Your task to perform on an android device: Open Maps and search for coffee Image 0: 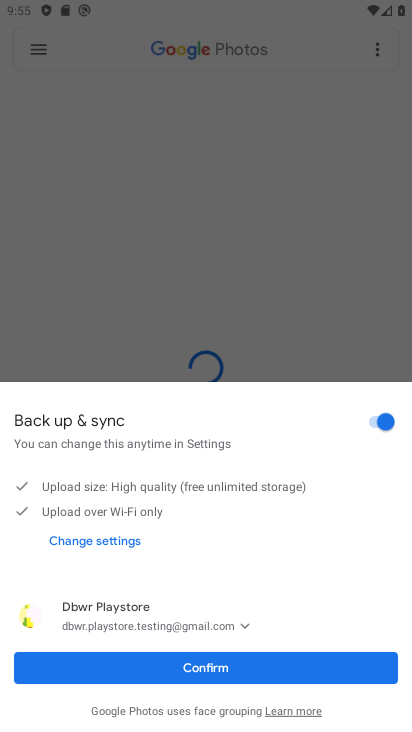
Step 0: press back button
Your task to perform on an android device: Open Maps and search for coffee Image 1: 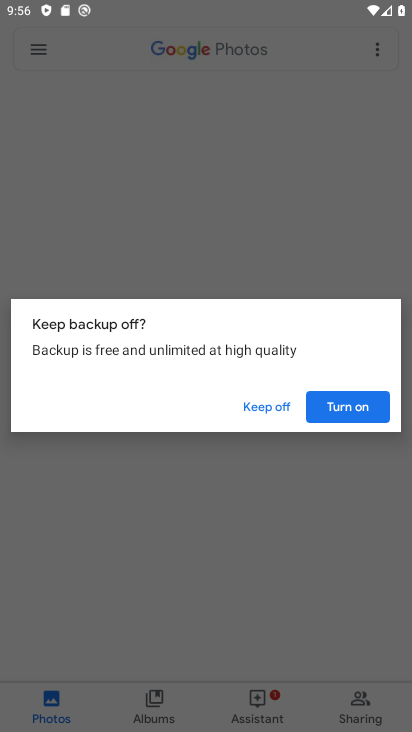
Step 1: press back button
Your task to perform on an android device: Open Maps and search for coffee Image 2: 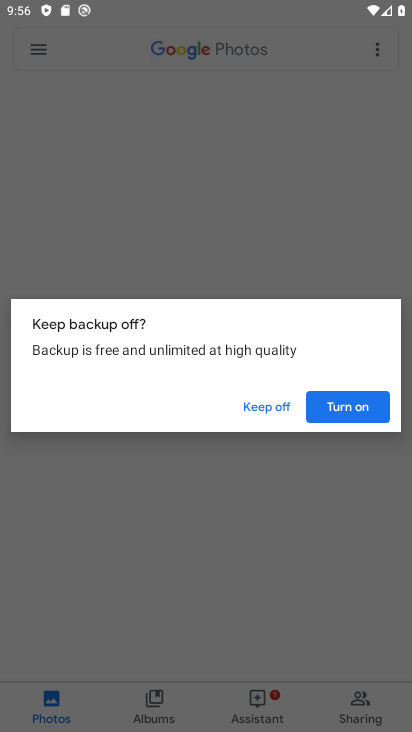
Step 2: press back button
Your task to perform on an android device: Open Maps and search for coffee Image 3: 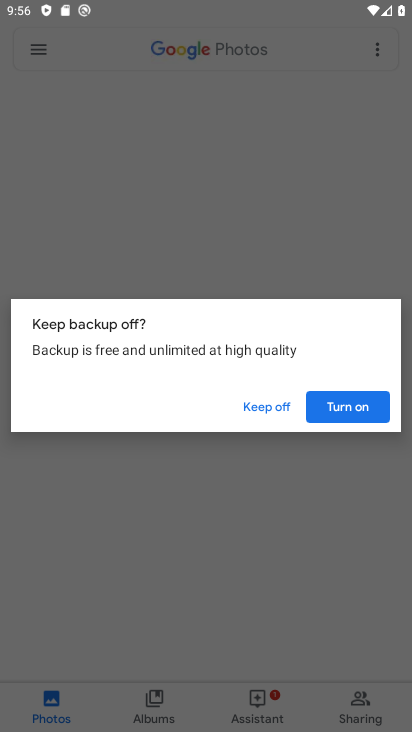
Step 3: press home button
Your task to perform on an android device: Open Maps and search for coffee Image 4: 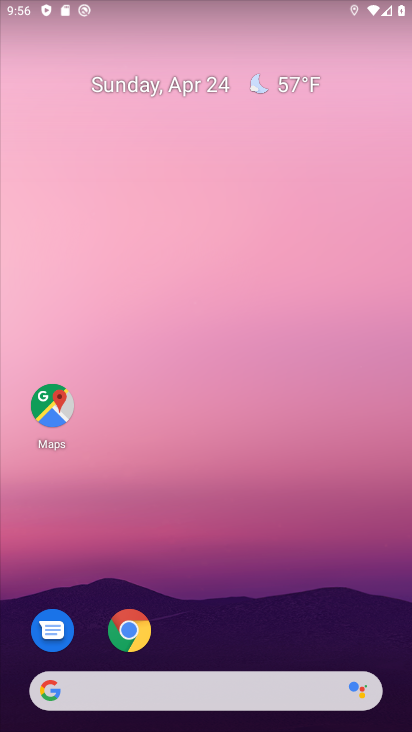
Step 4: click (51, 410)
Your task to perform on an android device: Open Maps and search for coffee Image 5: 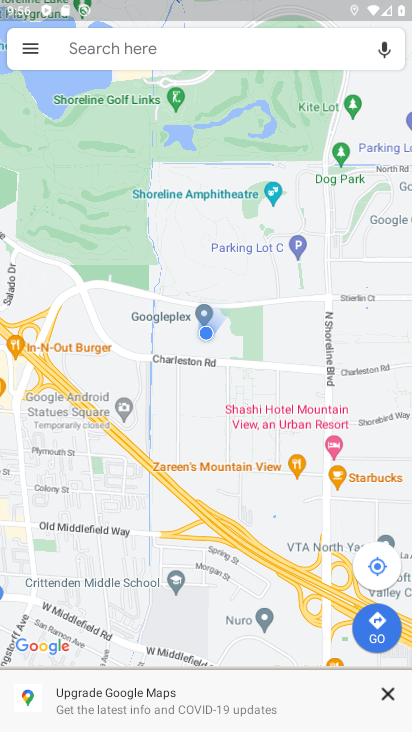
Step 5: click (140, 46)
Your task to perform on an android device: Open Maps and search for coffee Image 6: 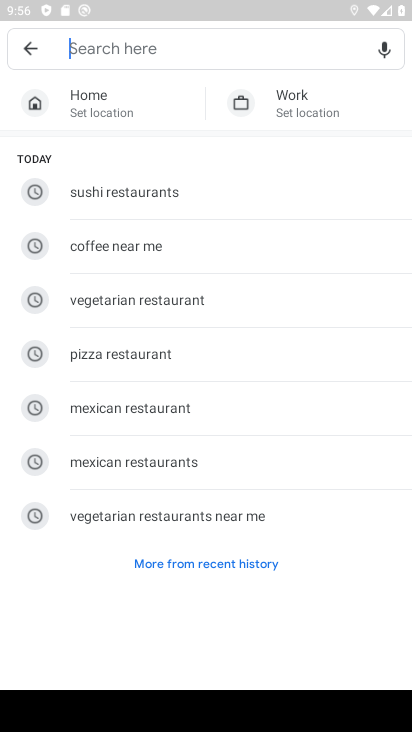
Step 6: type "coffee"
Your task to perform on an android device: Open Maps and search for coffee Image 7: 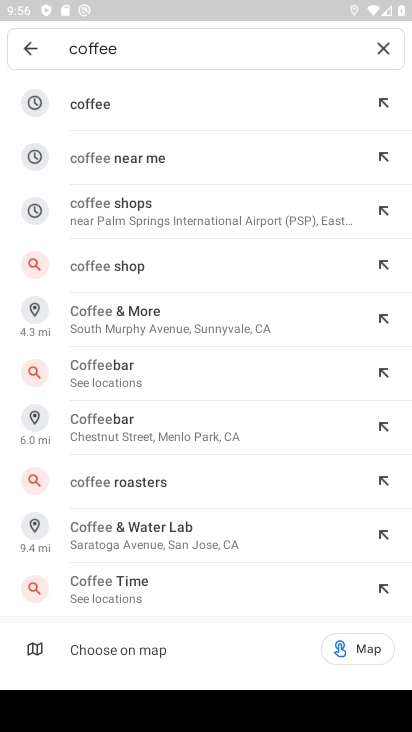
Step 7: click (89, 102)
Your task to perform on an android device: Open Maps and search for coffee Image 8: 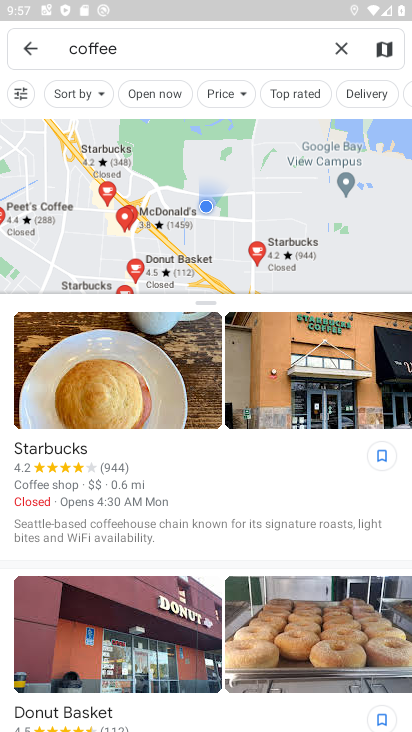
Step 8: task complete